Your task to perform on an android device: Go to Google maps Image 0: 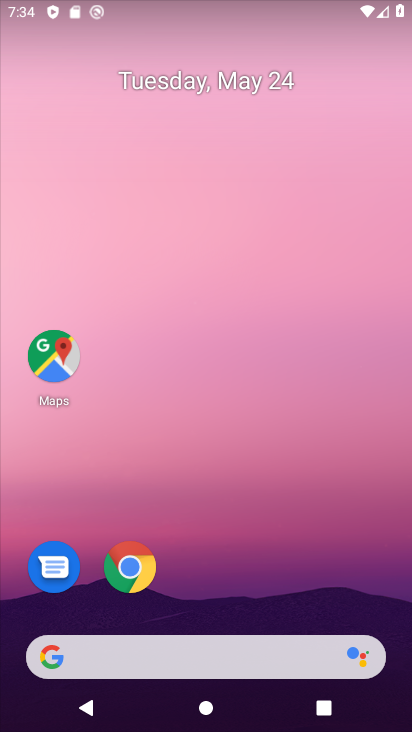
Step 0: click (65, 344)
Your task to perform on an android device: Go to Google maps Image 1: 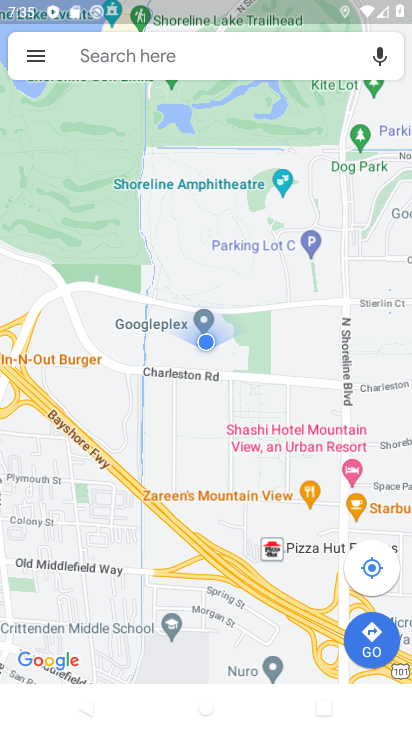
Step 1: task complete